Your task to perform on an android device: Go to location settings Image 0: 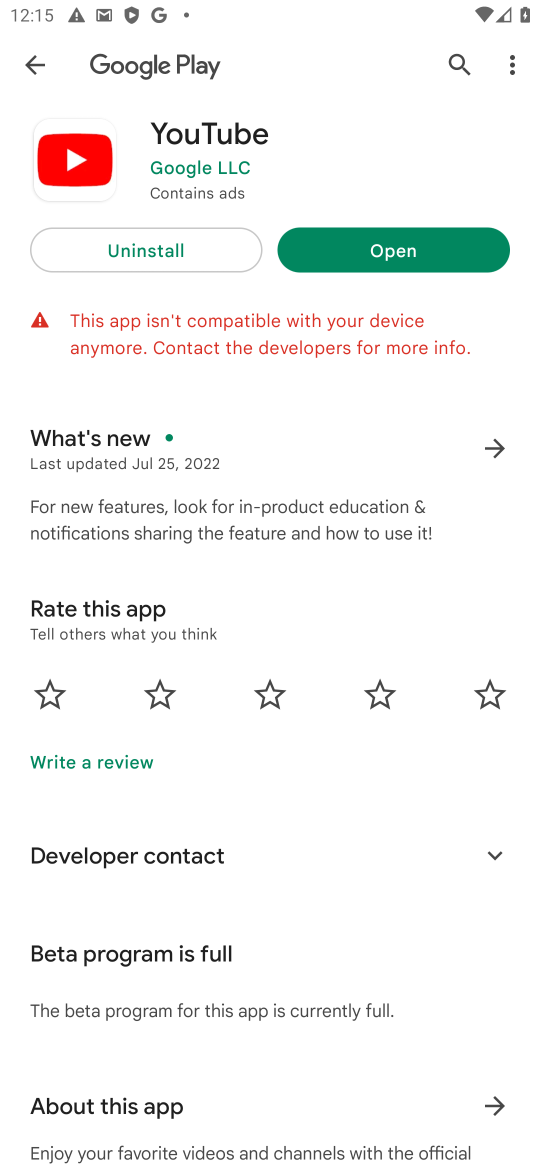
Step 0: press home button
Your task to perform on an android device: Go to location settings Image 1: 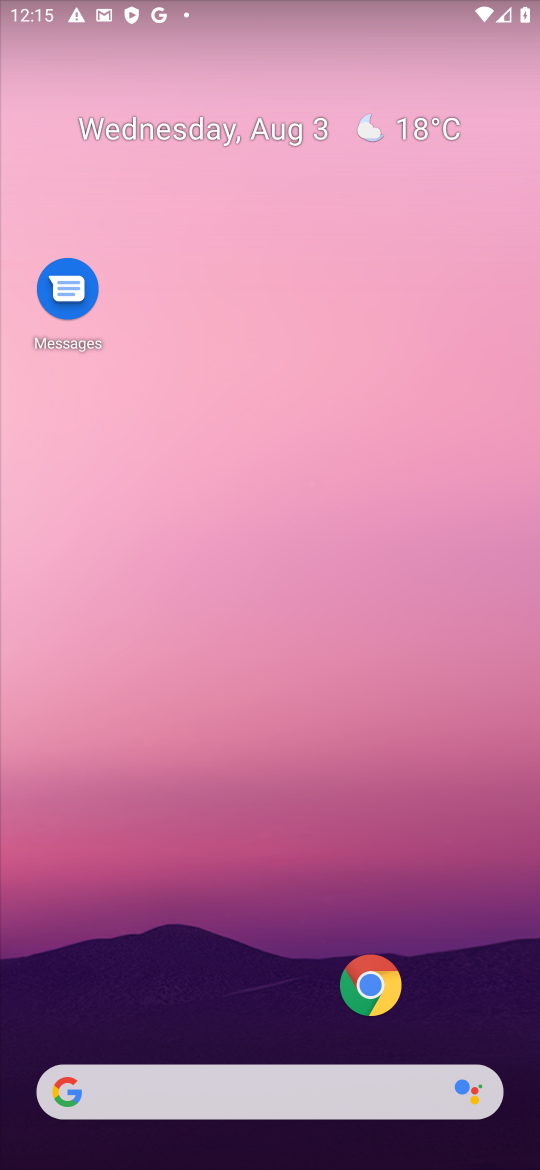
Step 1: drag from (188, 1055) to (234, 9)
Your task to perform on an android device: Go to location settings Image 2: 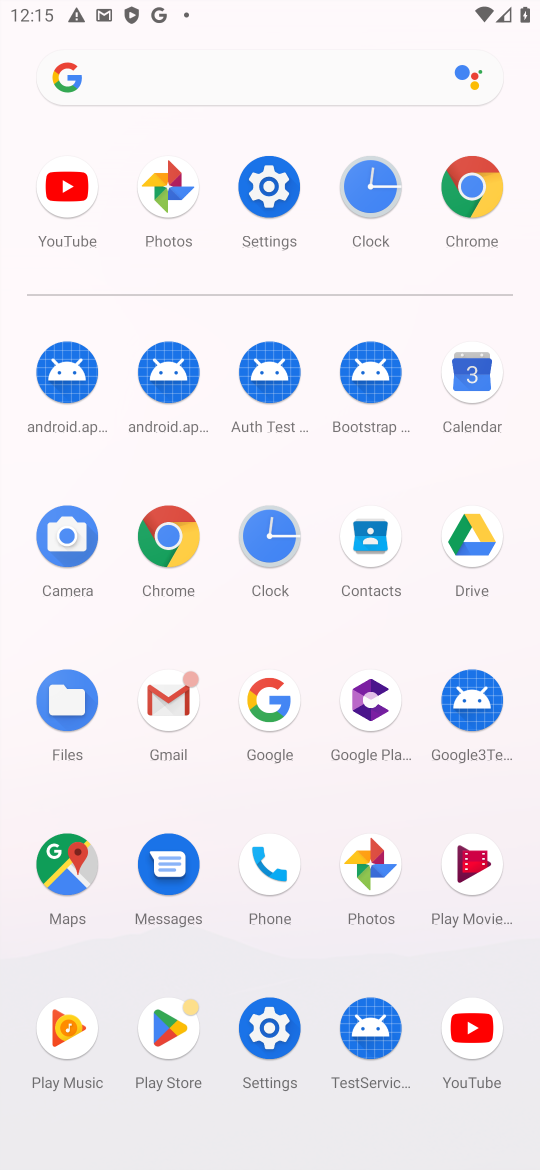
Step 2: click (273, 226)
Your task to perform on an android device: Go to location settings Image 3: 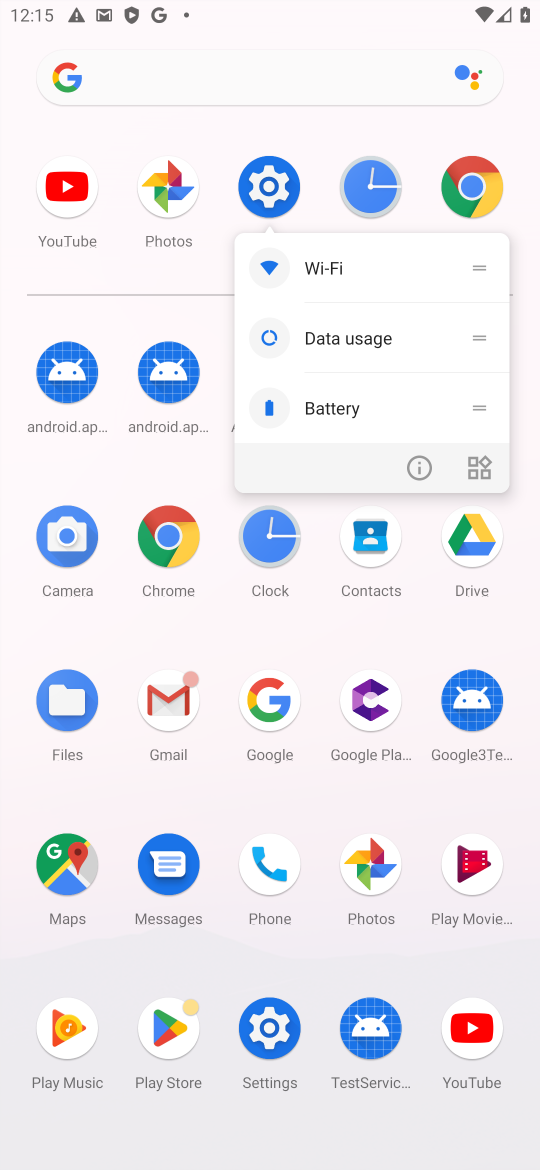
Step 3: click (273, 226)
Your task to perform on an android device: Go to location settings Image 4: 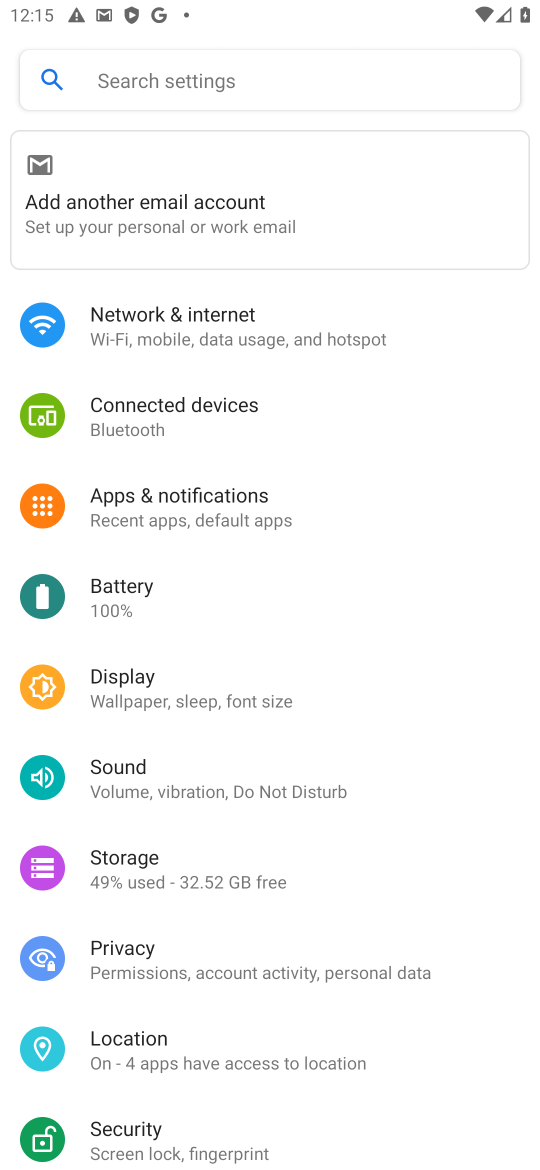
Step 4: click (245, 1074)
Your task to perform on an android device: Go to location settings Image 5: 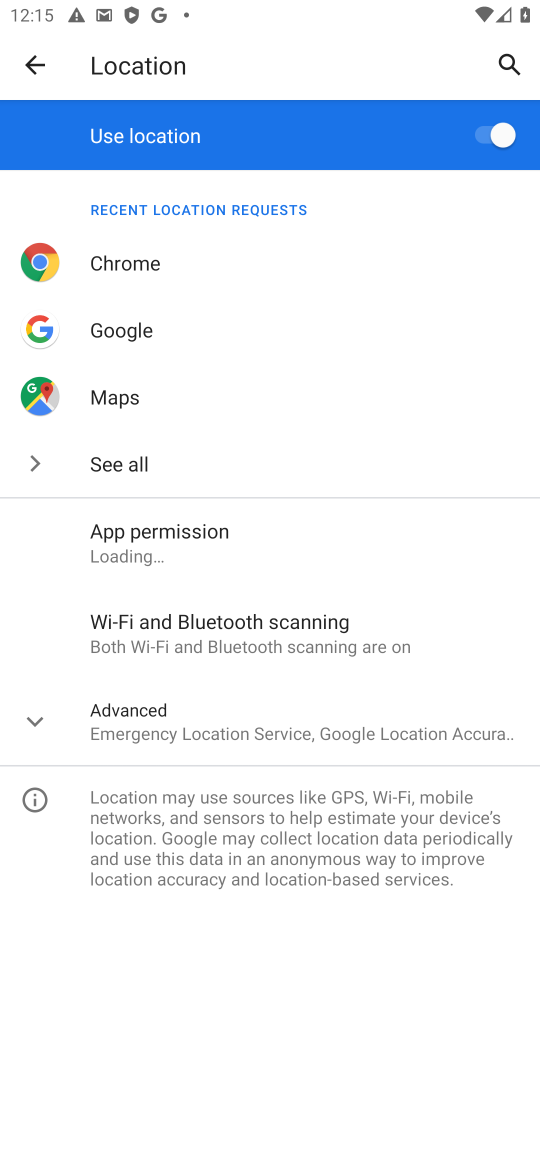
Step 5: task complete